Your task to perform on an android device: check android version Image 0: 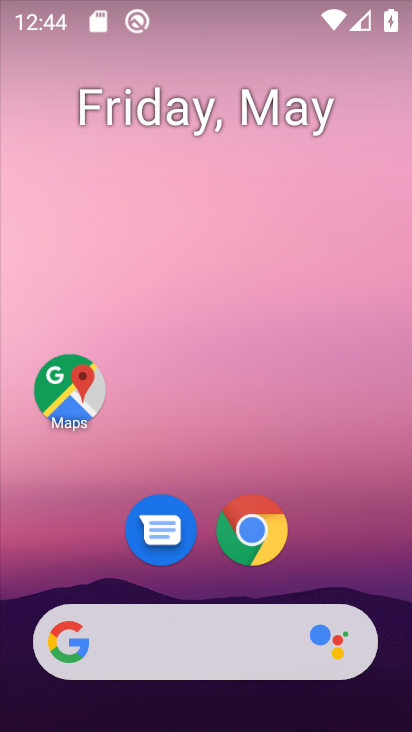
Step 0: drag from (260, 189) to (265, 154)
Your task to perform on an android device: check android version Image 1: 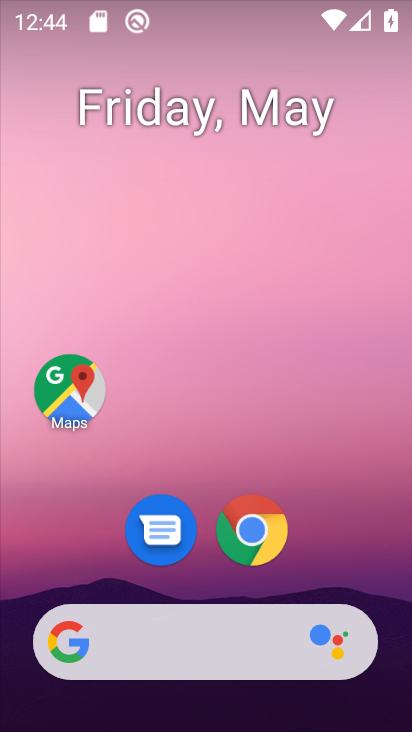
Step 1: drag from (311, 556) to (339, 71)
Your task to perform on an android device: check android version Image 2: 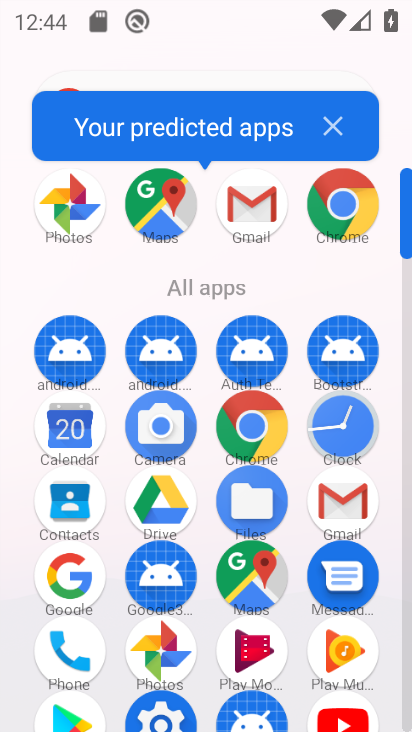
Step 2: drag from (177, 548) to (208, 209)
Your task to perform on an android device: check android version Image 3: 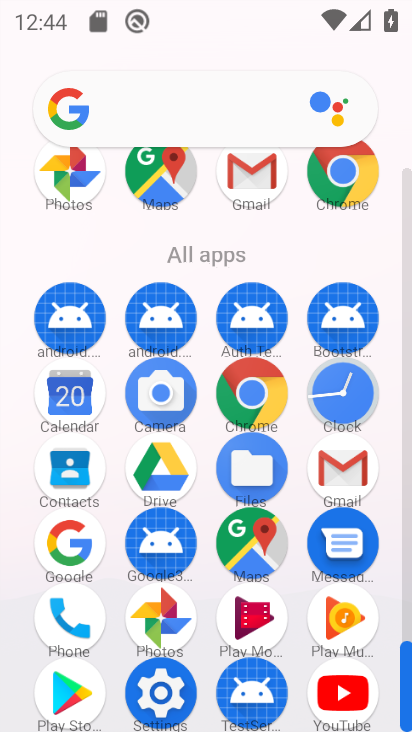
Step 3: click (174, 693)
Your task to perform on an android device: check android version Image 4: 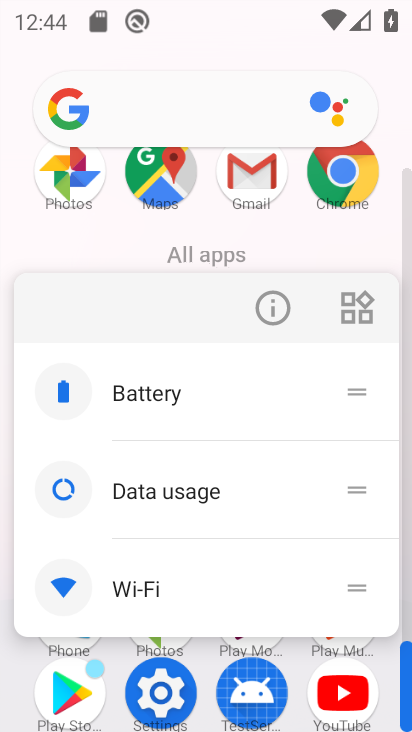
Step 4: click (171, 699)
Your task to perform on an android device: check android version Image 5: 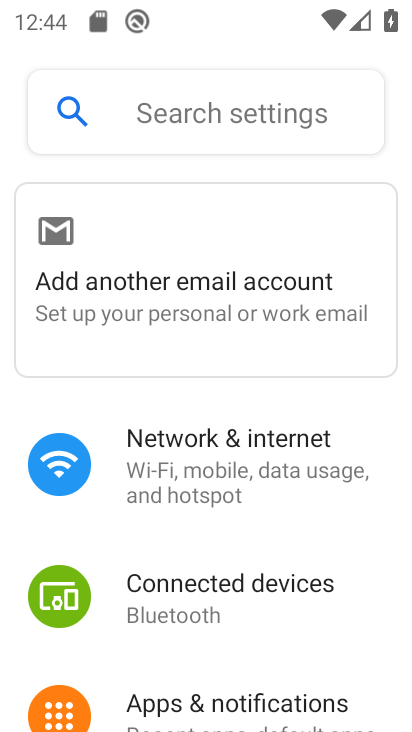
Step 5: drag from (210, 609) to (235, 183)
Your task to perform on an android device: check android version Image 6: 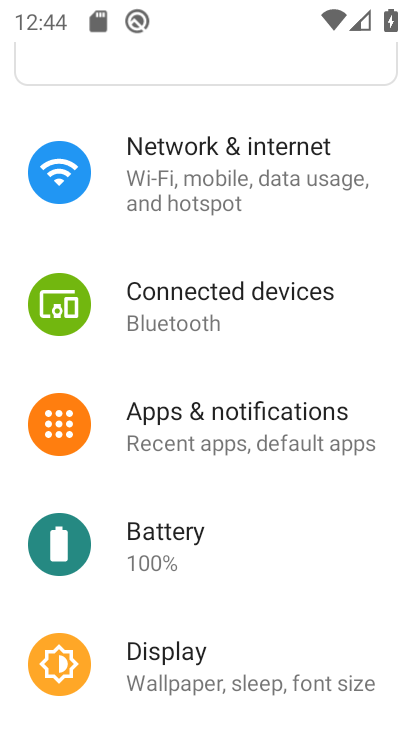
Step 6: drag from (245, 588) to (238, 184)
Your task to perform on an android device: check android version Image 7: 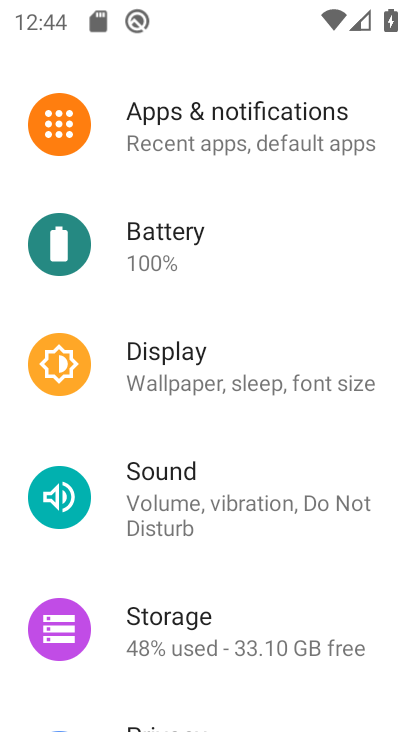
Step 7: drag from (244, 597) to (255, 153)
Your task to perform on an android device: check android version Image 8: 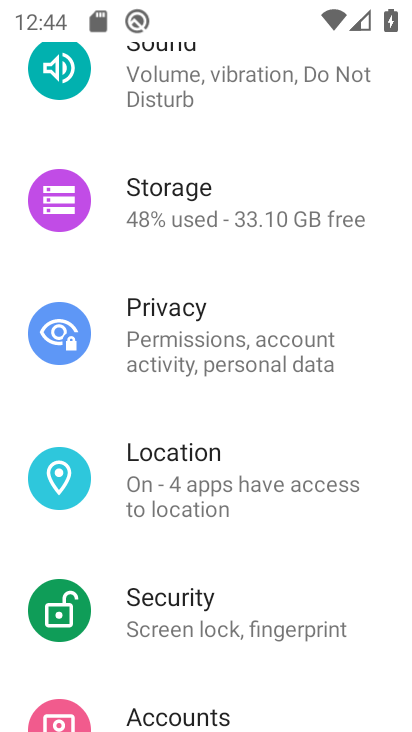
Step 8: drag from (228, 593) to (234, 166)
Your task to perform on an android device: check android version Image 9: 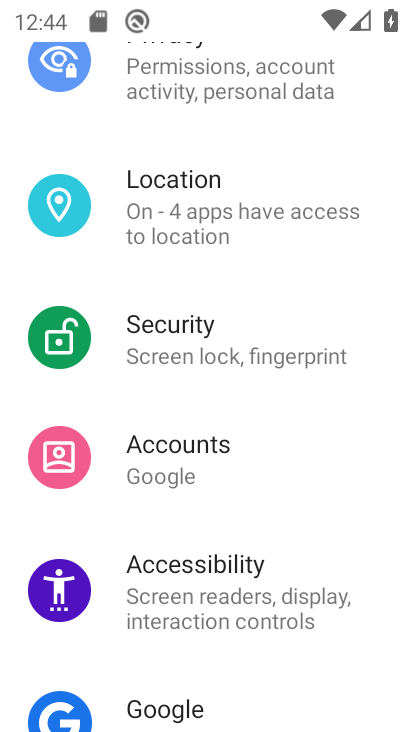
Step 9: drag from (251, 673) to (253, 238)
Your task to perform on an android device: check android version Image 10: 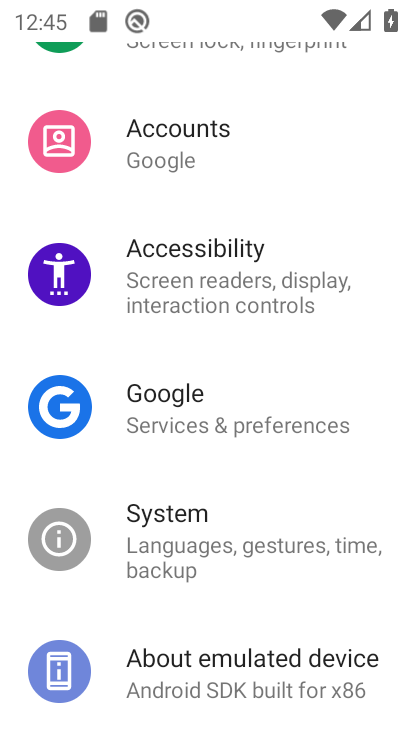
Step 10: drag from (214, 641) to (211, 270)
Your task to perform on an android device: check android version Image 11: 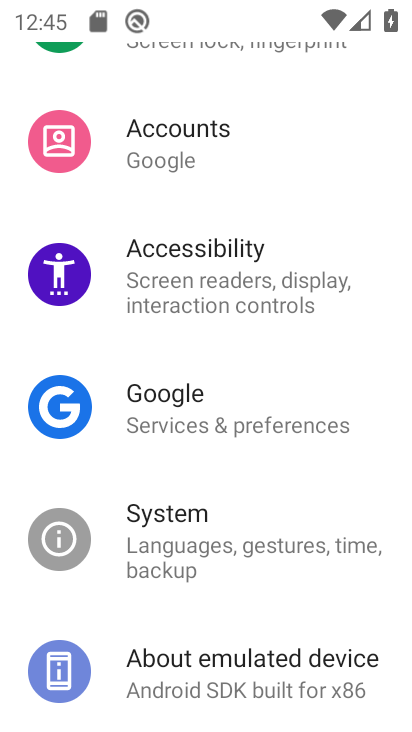
Step 11: drag from (237, 584) to (229, 226)
Your task to perform on an android device: check android version Image 12: 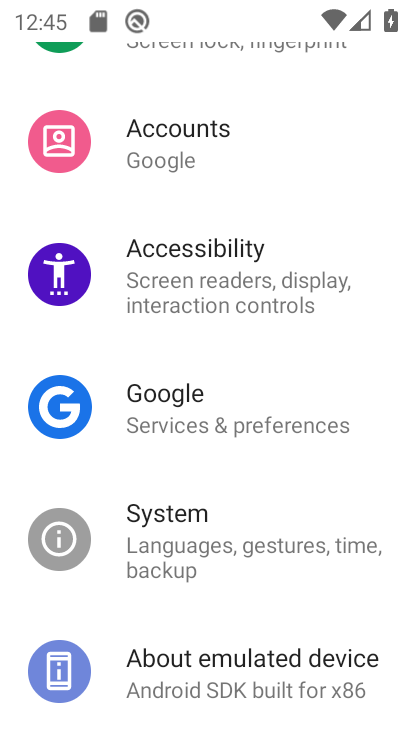
Step 12: click (239, 656)
Your task to perform on an android device: check android version Image 13: 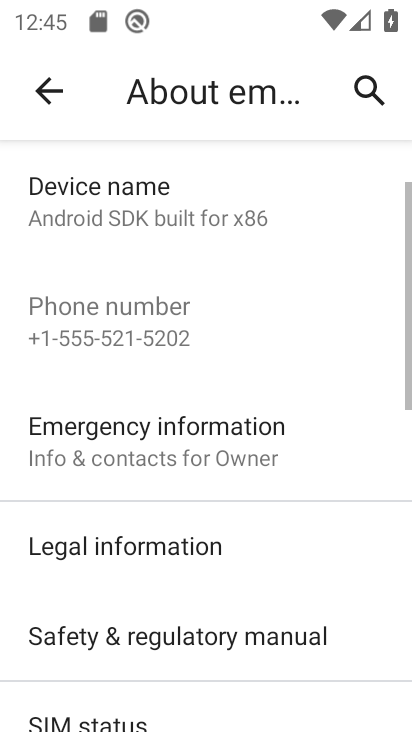
Step 13: drag from (233, 582) to (232, 200)
Your task to perform on an android device: check android version Image 14: 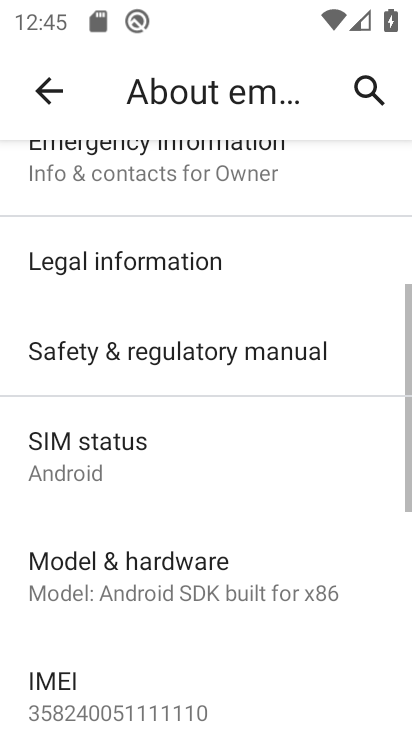
Step 14: drag from (178, 419) to (184, 181)
Your task to perform on an android device: check android version Image 15: 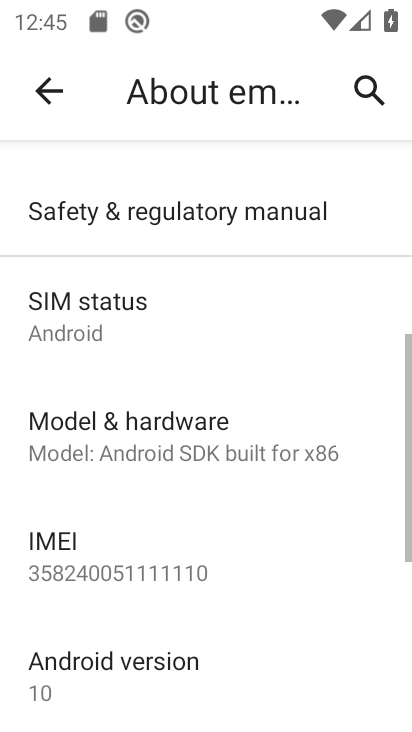
Step 15: click (158, 661)
Your task to perform on an android device: check android version Image 16: 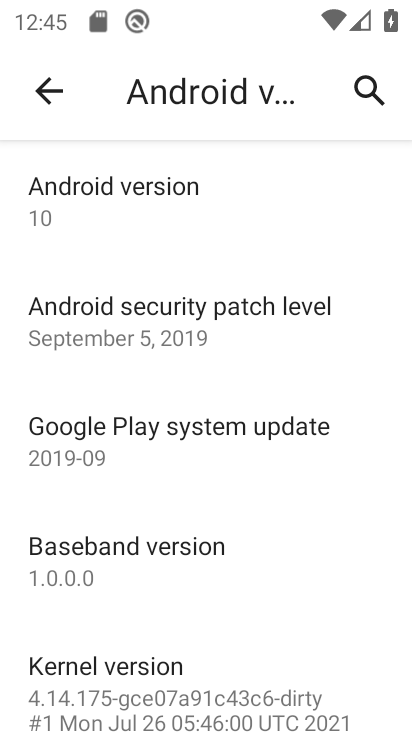
Step 16: task complete